Your task to perform on an android device: Show me recent news Image 0: 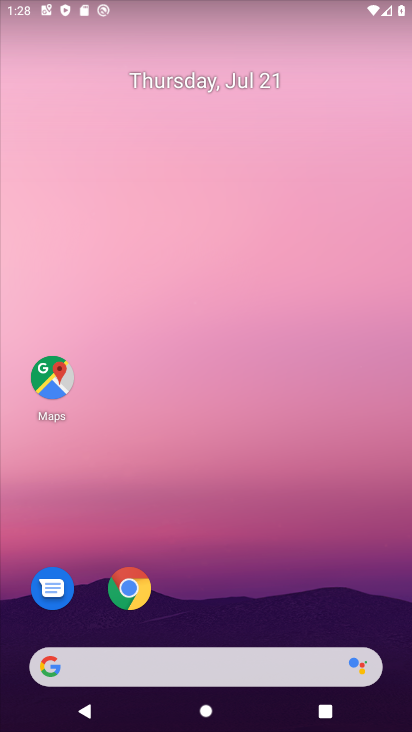
Step 0: drag from (270, 617) to (138, 136)
Your task to perform on an android device: Show me recent news Image 1: 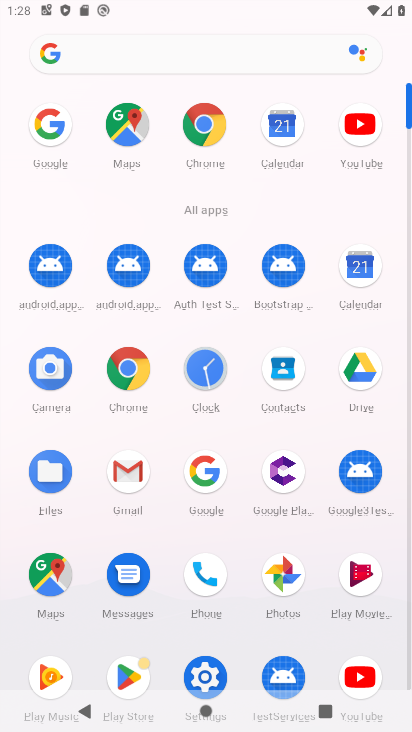
Step 1: click (203, 136)
Your task to perform on an android device: Show me recent news Image 2: 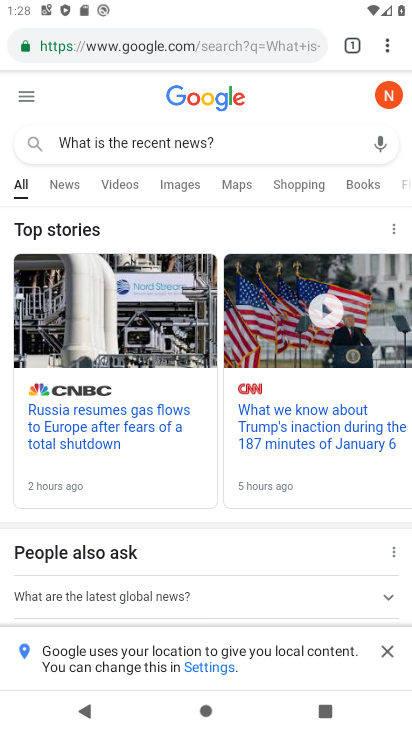
Step 2: click (220, 144)
Your task to perform on an android device: Show me recent news Image 3: 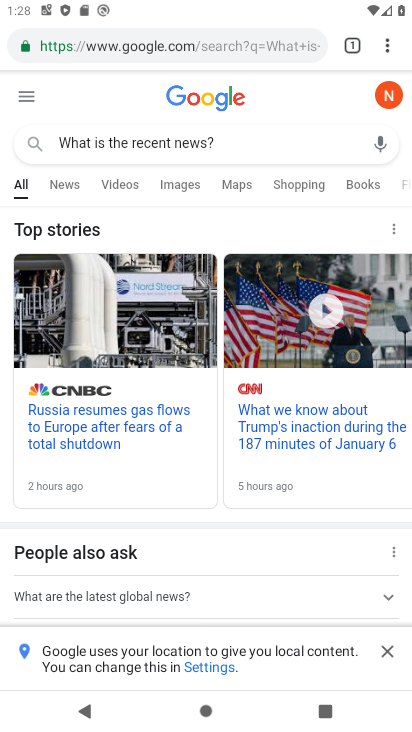
Step 3: click (220, 144)
Your task to perform on an android device: Show me recent news Image 4: 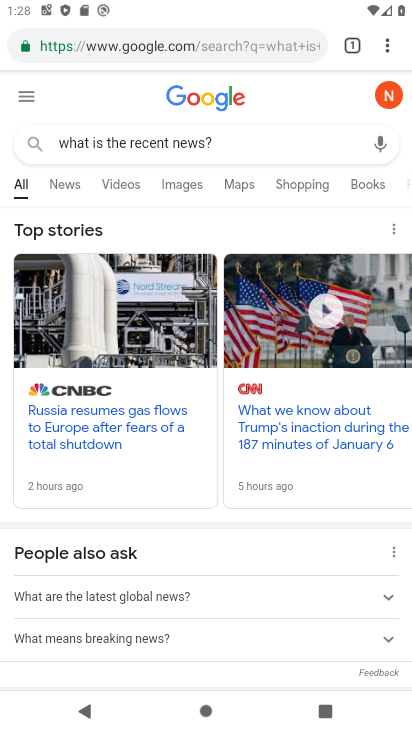
Step 4: click (246, 52)
Your task to perform on an android device: Show me recent news Image 5: 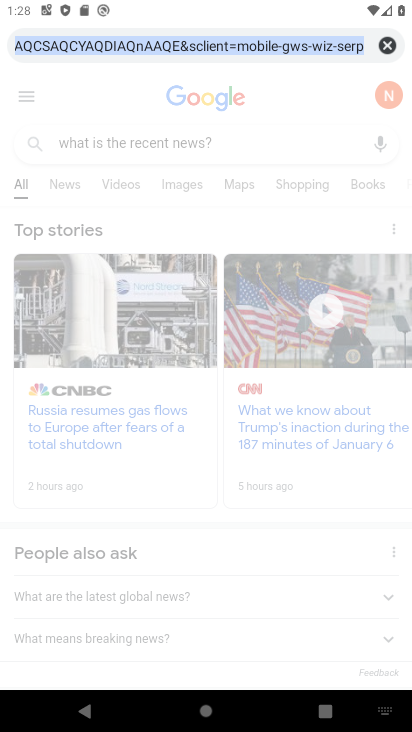
Step 5: type "recent news"
Your task to perform on an android device: Show me recent news Image 6: 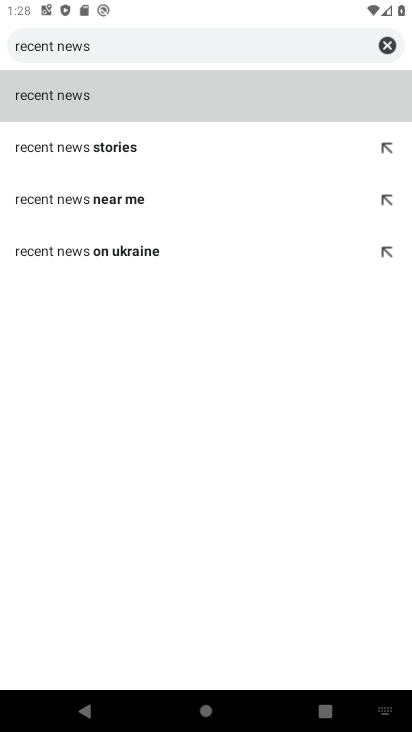
Step 6: click (269, 106)
Your task to perform on an android device: Show me recent news Image 7: 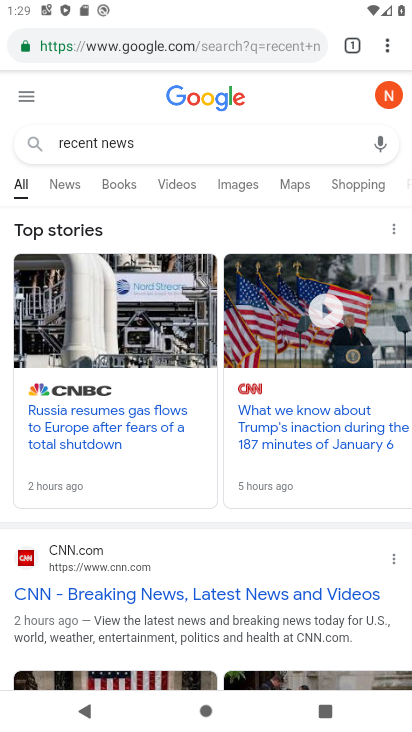
Step 7: task complete